Your task to perform on an android device: change the clock display to analog Image 0: 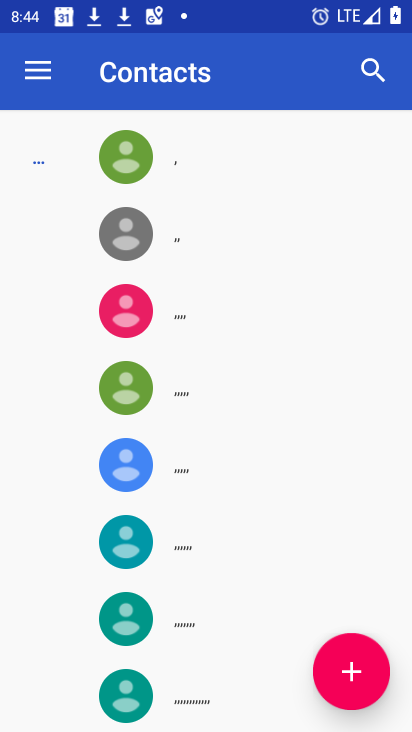
Step 0: press home button
Your task to perform on an android device: change the clock display to analog Image 1: 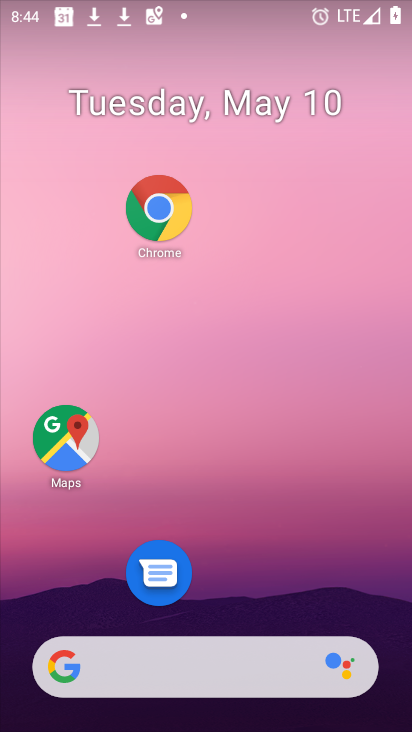
Step 1: drag from (252, 631) to (261, 201)
Your task to perform on an android device: change the clock display to analog Image 2: 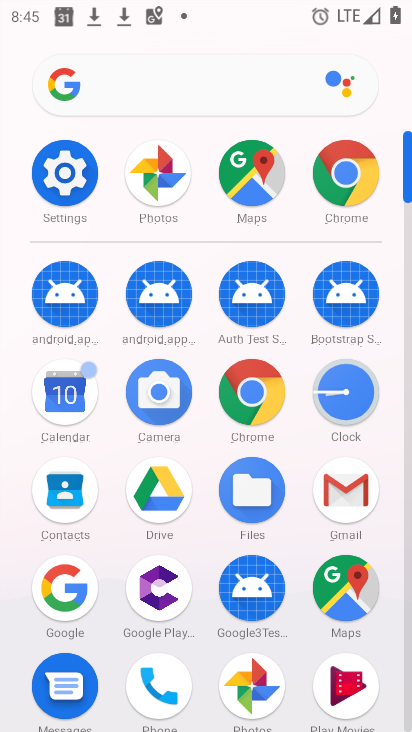
Step 2: click (357, 404)
Your task to perform on an android device: change the clock display to analog Image 3: 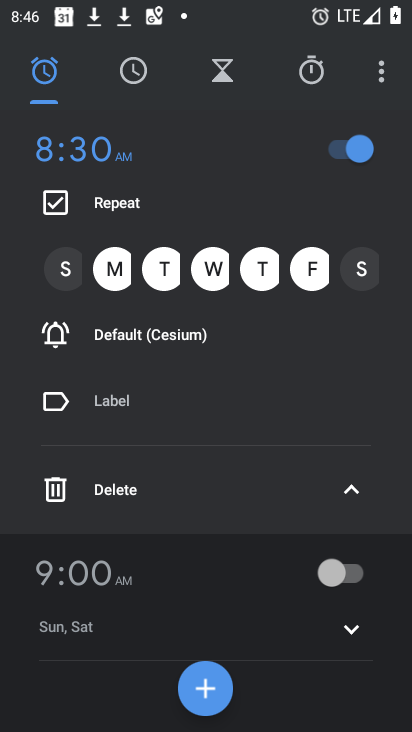
Step 3: click (382, 88)
Your task to perform on an android device: change the clock display to analog Image 4: 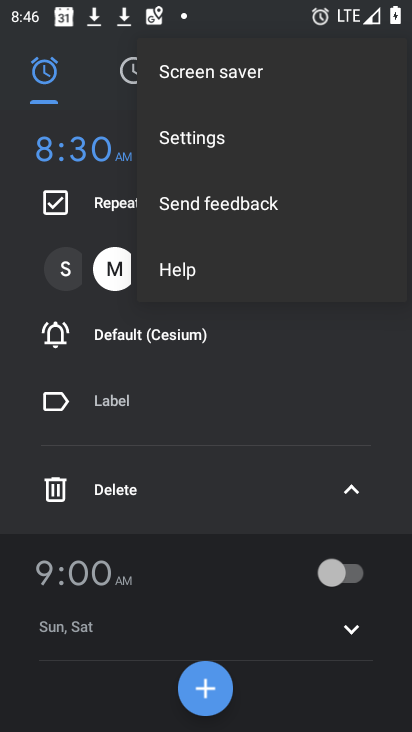
Step 4: click (206, 132)
Your task to perform on an android device: change the clock display to analog Image 5: 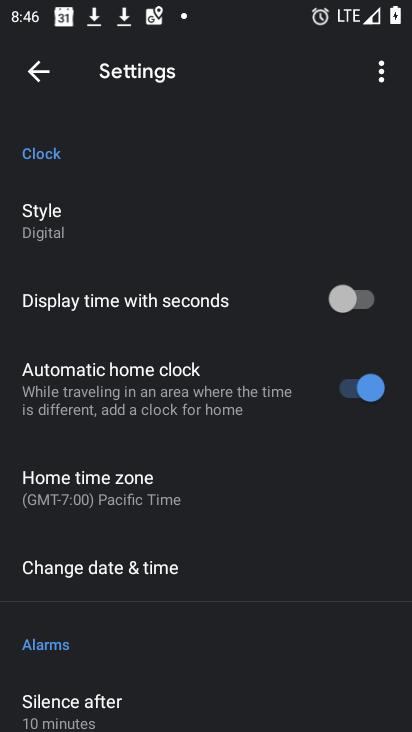
Step 5: click (116, 216)
Your task to perform on an android device: change the clock display to analog Image 6: 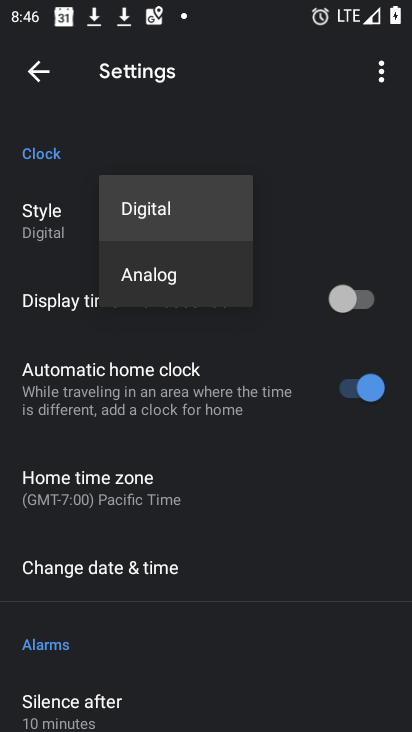
Step 6: click (161, 276)
Your task to perform on an android device: change the clock display to analog Image 7: 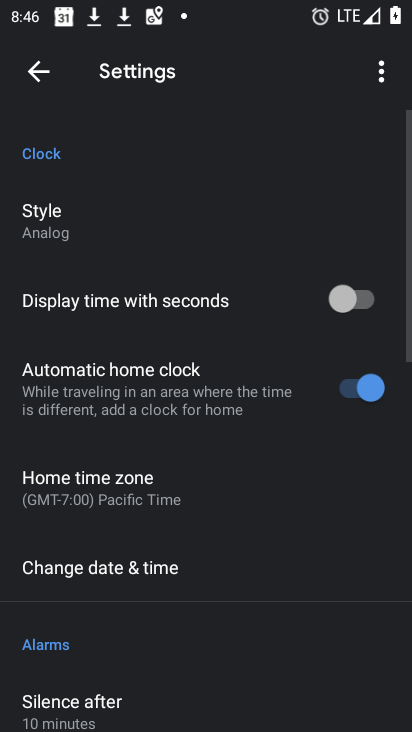
Step 7: task complete